Your task to perform on an android device: open chrome and create a bookmark for the current page Image 0: 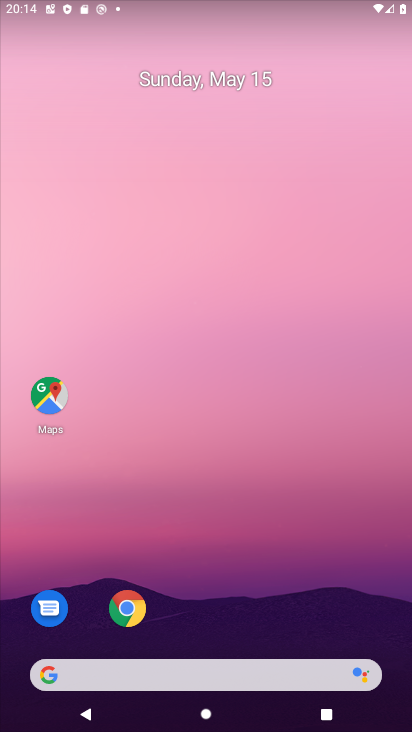
Step 0: click (130, 609)
Your task to perform on an android device: open chrome and create a bookmark for the current page Image 1: 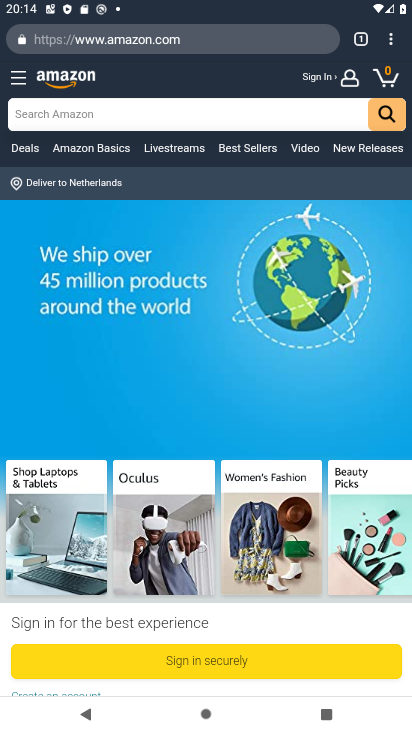
Step 1: click (380, 38)
Your task to perform on an android device: open chrome and create a bookmark for the current page Image 2: 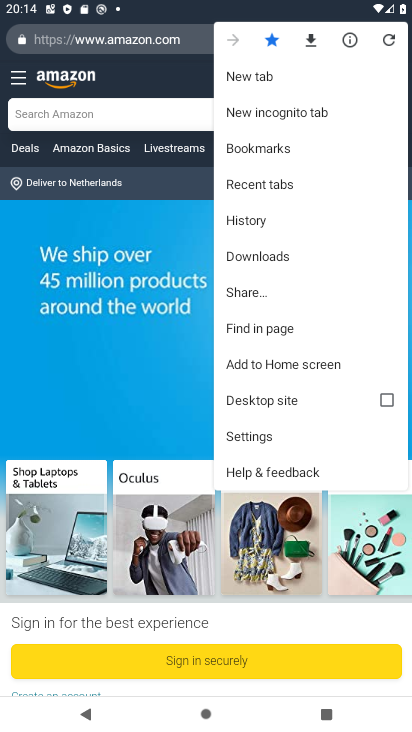
Step 2: task complete